Your task to perform on an android device: Open calendar and show me the first week of next month Image 0: 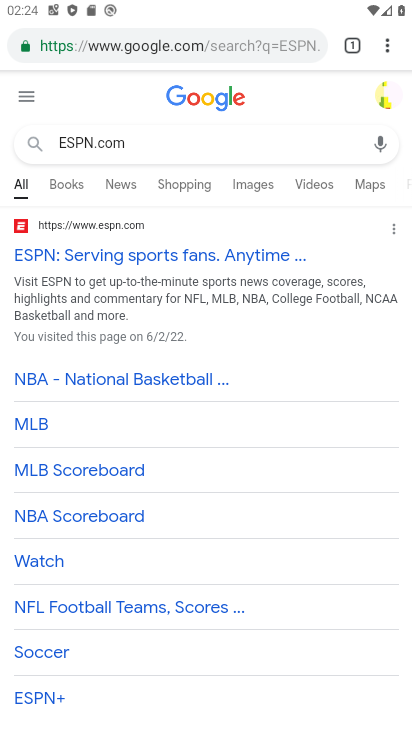
Step 0: press home button
Your task to perform on an android device: Open calendar and show me the first week of next month Image 1: 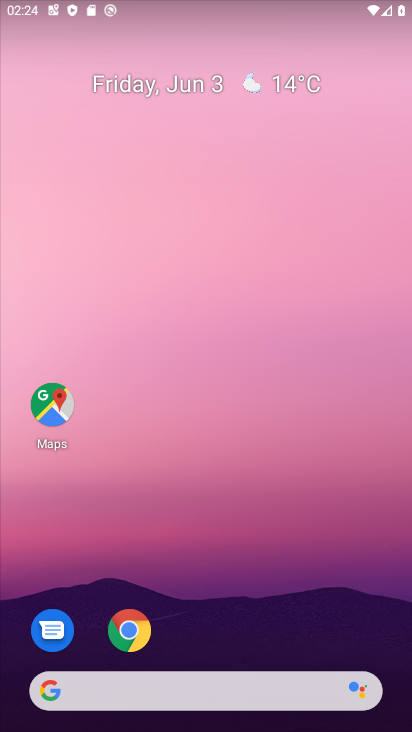
Step 1: drag from (395, 694) to (317, 181)
Your task to perform on an android device: Open calendar and show me the first week of next month Image 2: 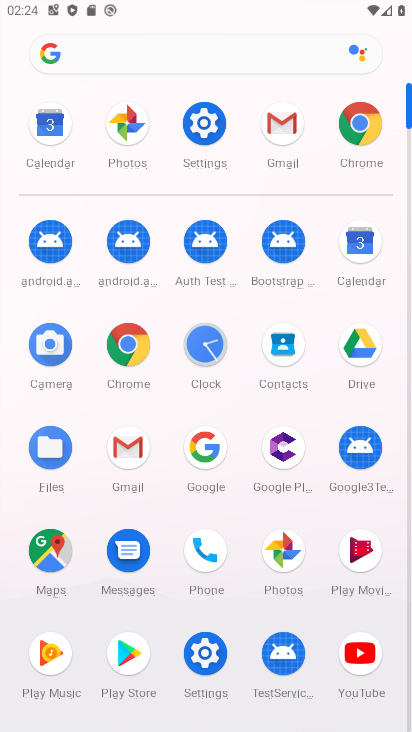
Step 2: click (359, 249)
Your task to perform on an android device: Open calendar and show me the first week of next month Image 3: 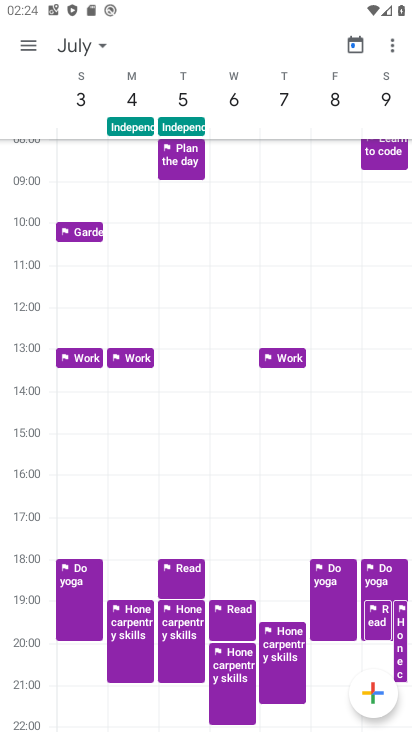
Step 3: click (104, 42)
Your task to perform on an android device: Open calendar and show me the first week of next month Image 4: 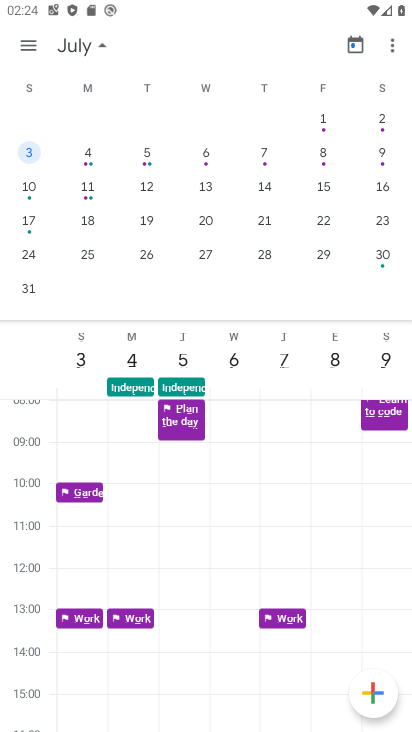
Step 4: click (319, 119)
Your task to perform on an android device: Open calendar and show me the first week of next month Image 5: 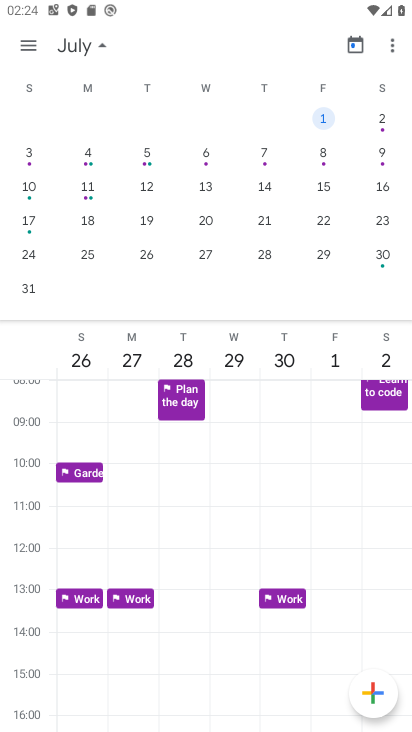
Step 5: click (19, 44)
Your task to perform on an android device: Open calendar and show me the first week of next month Image 6: 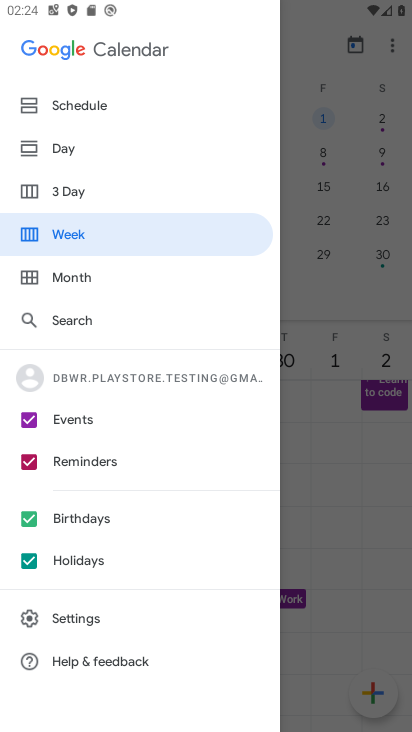
Step 6: click (62, 233)
Your task to perform on an android device: Open calendar and show me the first week of next month Image 7: 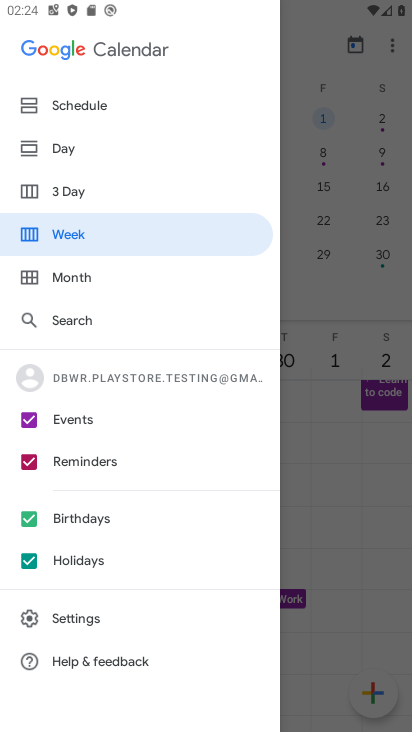
Step 7: click (353, 290)
Your task to perform on an android device: Open calendar and show me the first week of next month Image 8: 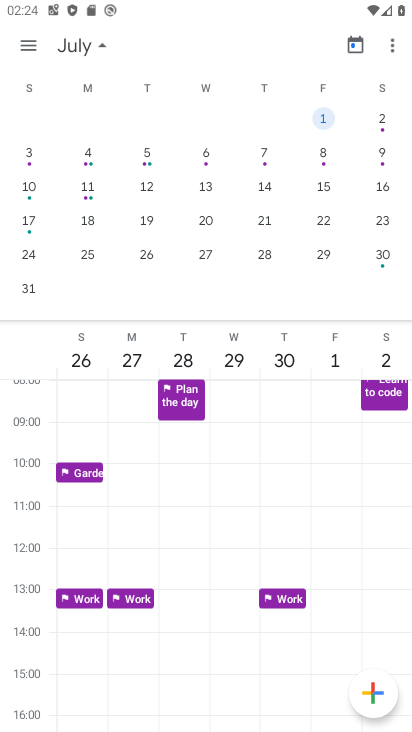
Step 8: task complete